Your task to perform on an android device: clear history in the chrome app Image 0: 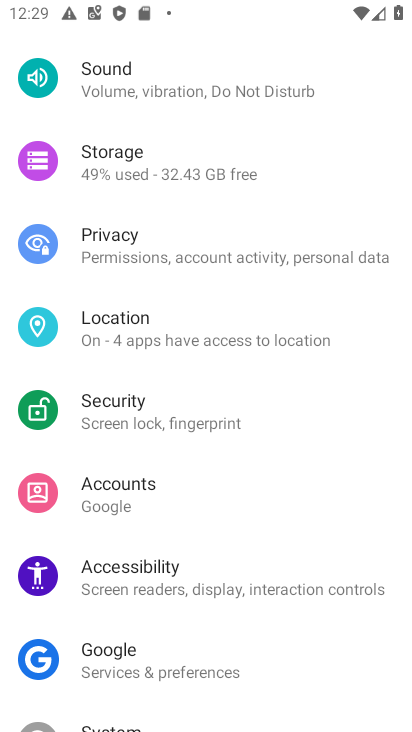
Step 0: press home button
Your task to perform on an android device: clear history in the chrome app Image 1: 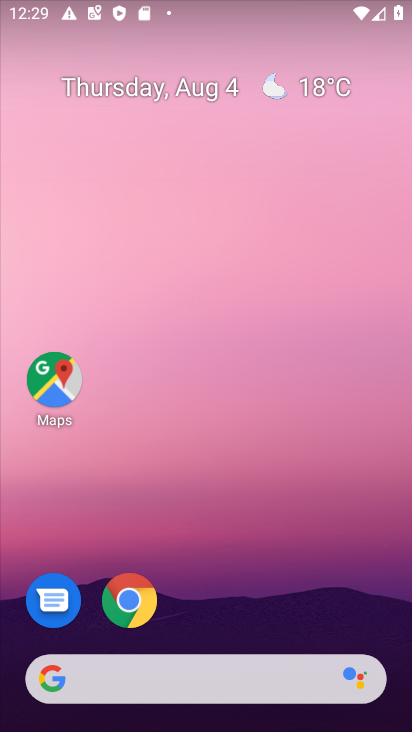
Step 1: click (133, 603)
Your task to perform on an android device: clear history in the chrome app Image 2: 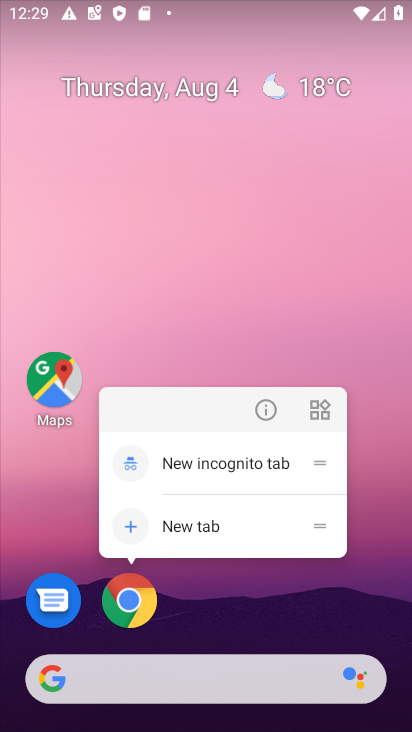
Step 2: click (133, 603)
Your task to perform on an android device: clear history in the chrome app Image 3: 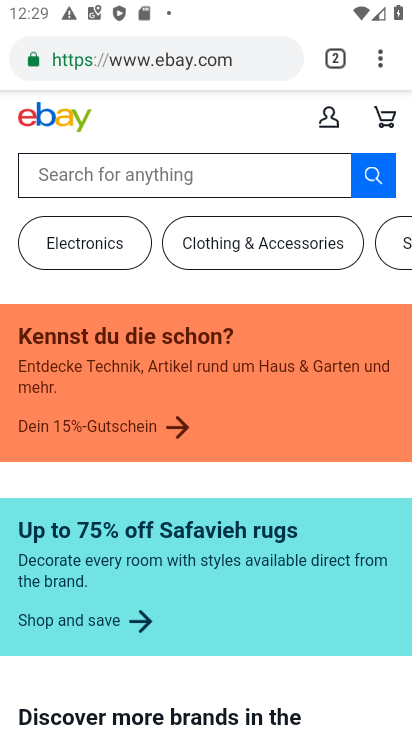
Step 3: task complete